Your task to perform on an android device: change the clock display to show seconds Image 0: 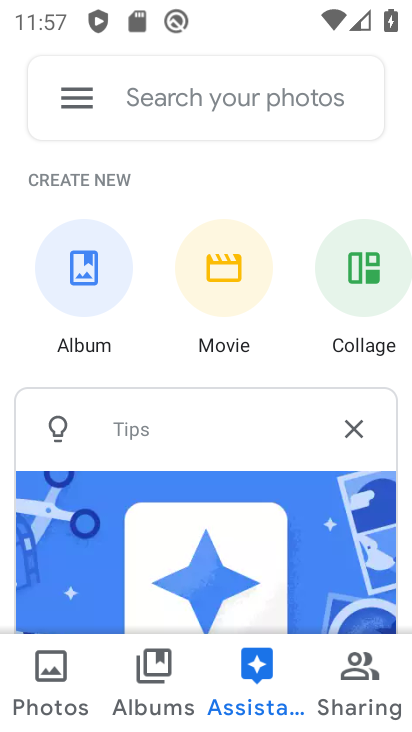
Step 0: press home button
Your task to perform on an android device: change the clock display to show seconds Image 1: 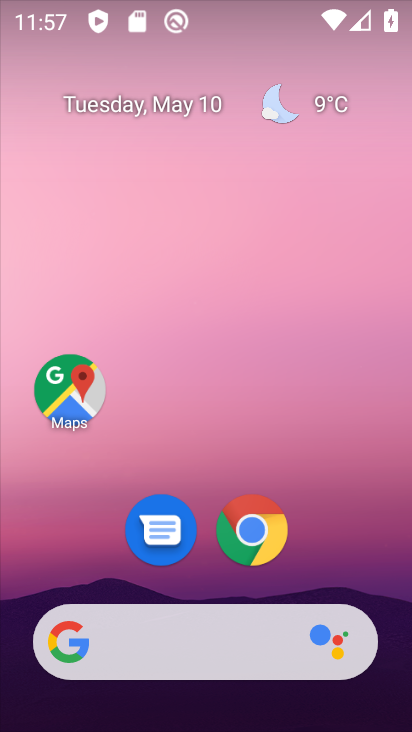
Step 1: drag from (323, 260) to (290, 1)
Your task to perform on an android device: change the clock display to show seconds Image 2: 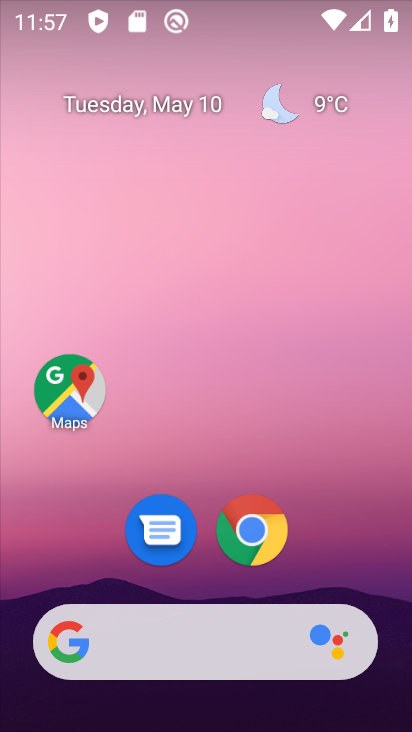
Step 2: drag from (379, 534) to (378, 78)
Your task to perform on an android device: change the clock display to show seconds Image 3: 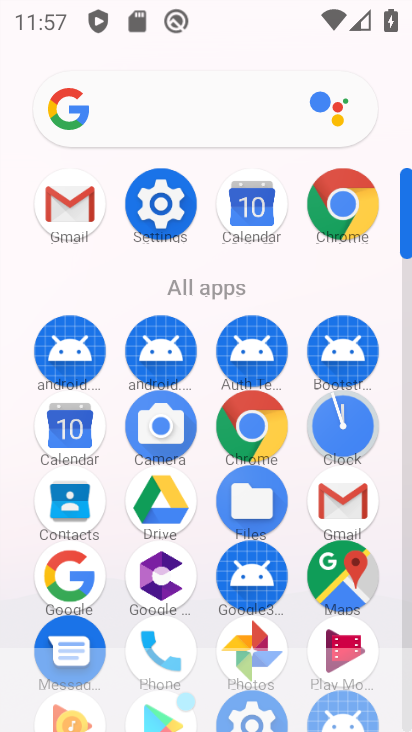
Step 3: click (324, 438)
Your task to perform on an android device: change the clock display to show seconds Image 4: 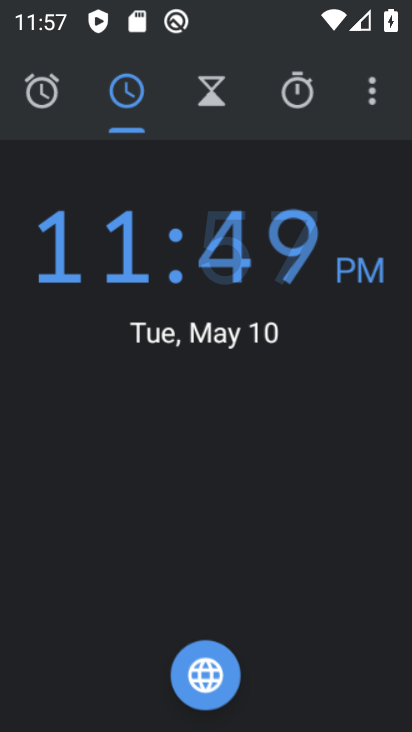
Step 4: click (324, 438)
Your task to perform on an android device: change the clock display to show seconds Image 5: 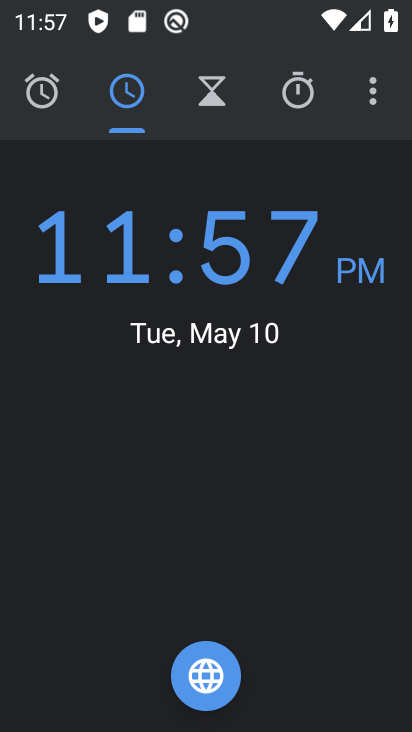
Step 5: click (324, 438)
Your task to perform on an android device: change the clock display to show seconds Image 6: 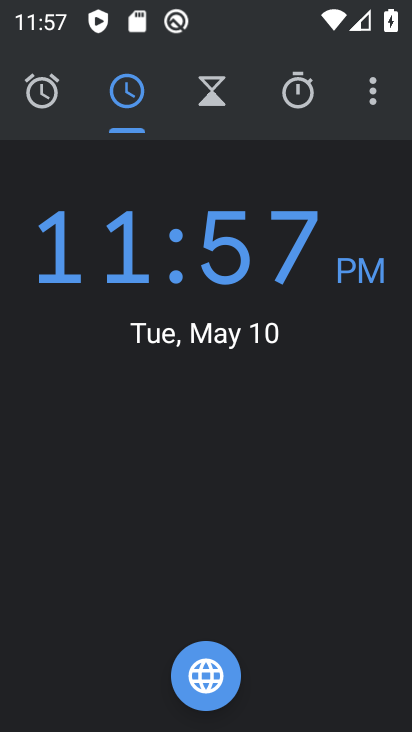
Step 6: click (324, 438)
Your task to perform on an android device: change the clock display to show seconds Image 7: 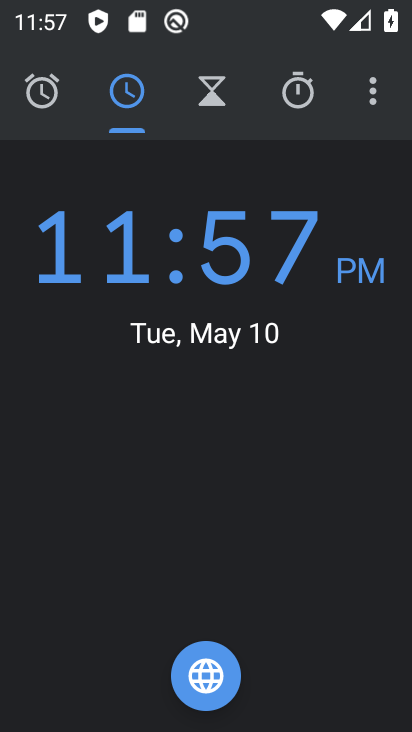
Step 7: click (324, 438)
Your task to perform on an android device: change the clock display to show seconds Image 8: 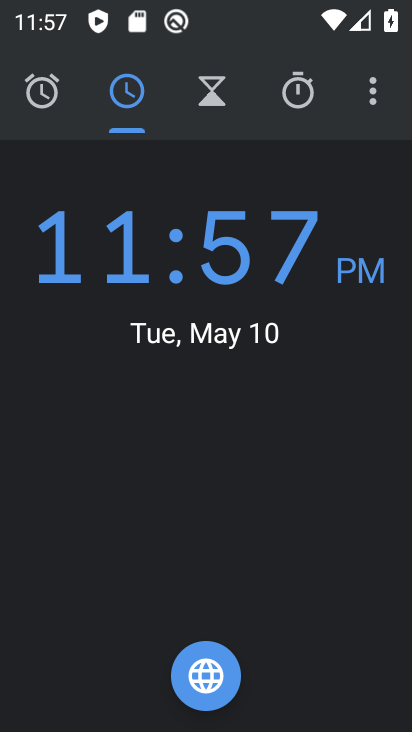
Step 8: click (386, 95)
Your task to perform on an android device: change the clock display to show seconds Image 9: 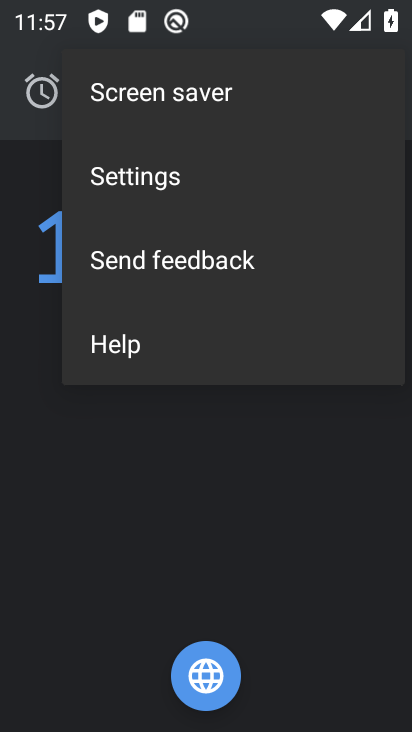
Step 9: click (197, 176)
Your task to perform on an android device: change the clock display to show seconds Image 10: 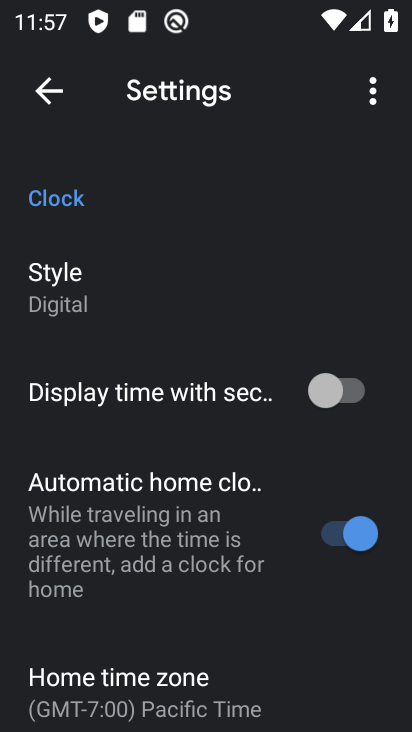
Step 10: click (314, 413)
Your task to perform on an android device: change the clock display to show seconds Image 11: 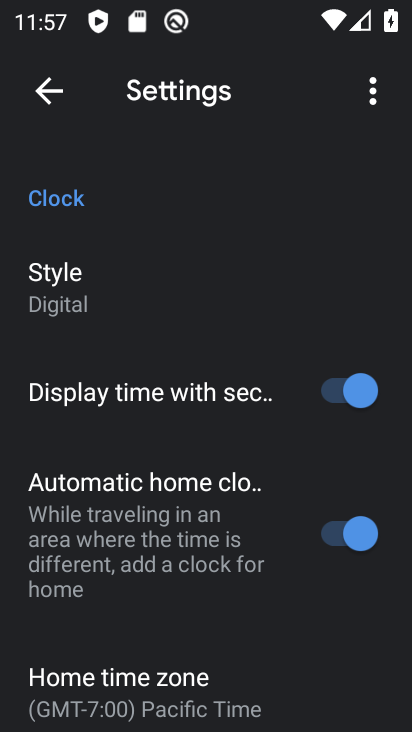
Step 11: task complete